Your task to perform on an android device: Turn off the flashlight Image 0: 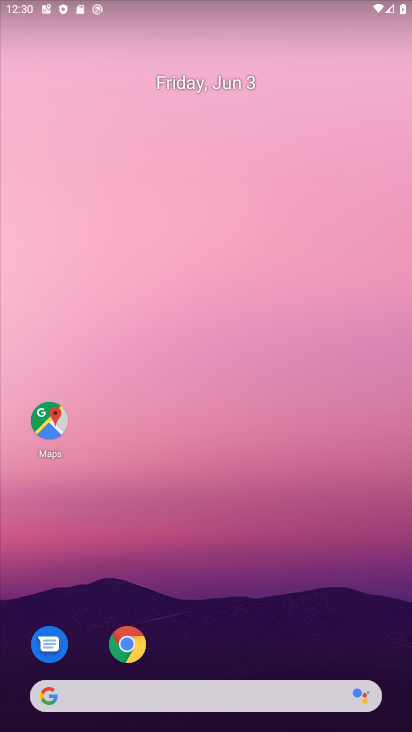
Step 0: drag from (214, 725) to (213, 36)
Your task to perform on an android device: Turn off the flashlight Image 1: 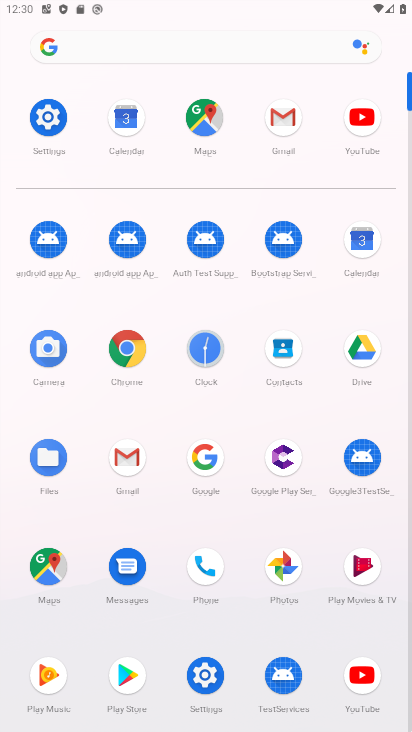
Step 1: click (50, 119)
Your task to perform on an android device: Turn off the flashlight Image 2: 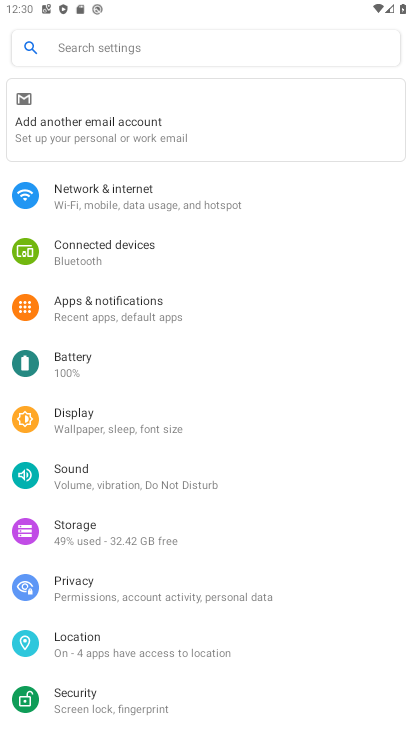
Step 2: task complete